Your task to perform on an android device: check the backup settings in the google photos Image 0: 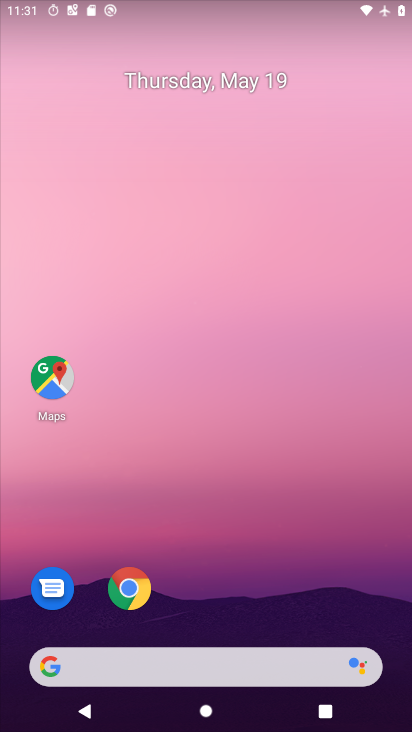
Step 0: press home button
Your task to perform on an android device: check the backup settings in the google photos Image 1: 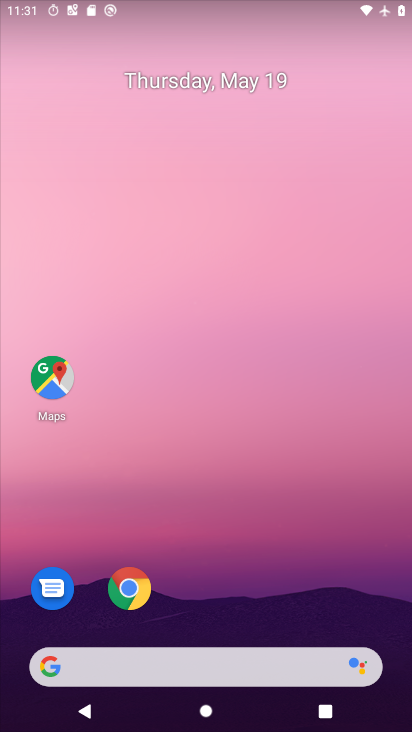
Step 1: drag from (160, 659) to (300, 177)
Your task to perform on an android device: check the backup settings in the google photos Image 2: 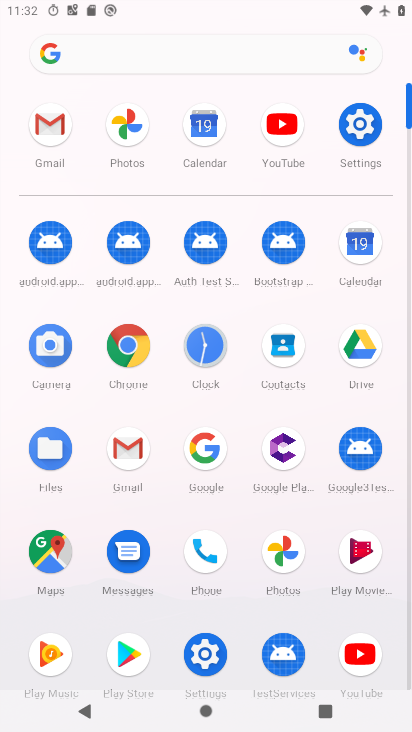
Step 2: click (283, 556)
Your task to perform on an android device: check the backup settings in the google photos Image 3: 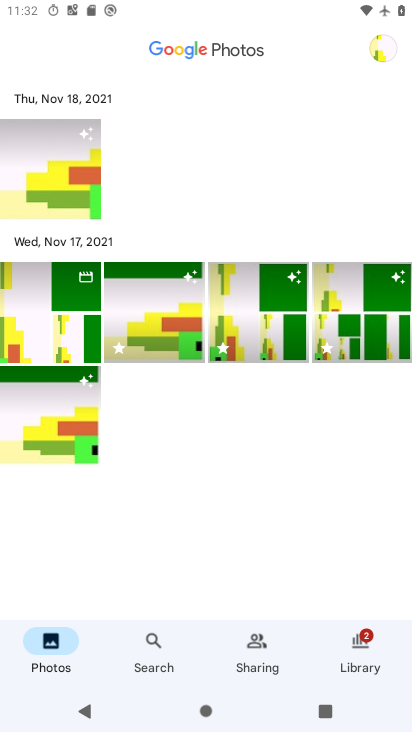
Step 3: click (377, 56)
Your task to perform on an android device: check the backup settings in the google photos Image 4: 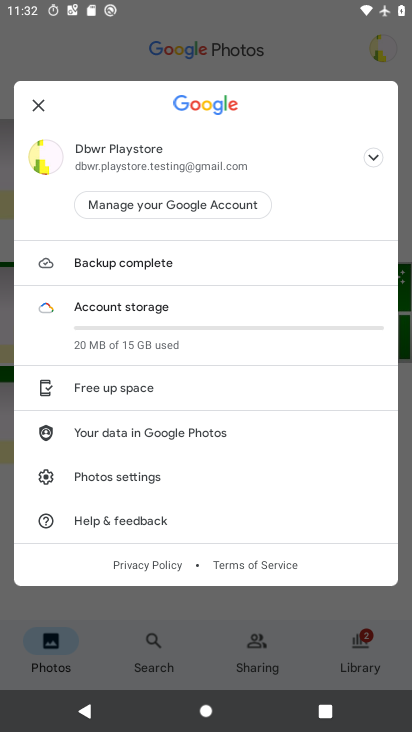
Step 4: click (121, 476)
Your task to perform on an android device: check the backup settings in the google photos Image 5: 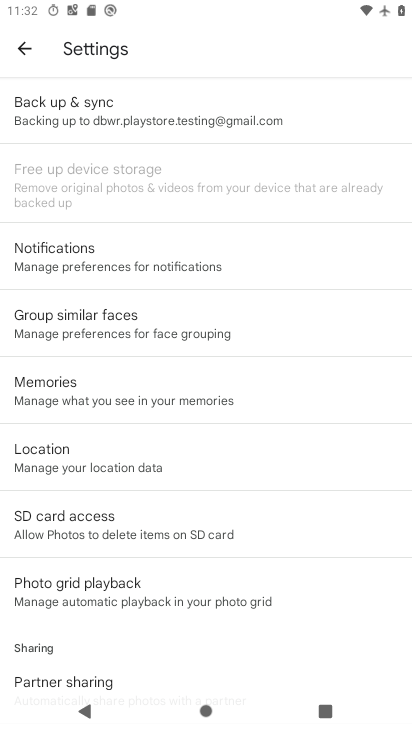
Step 5: click (215, 120)
Your task to perform on an android device: check the backup settings in the google photos Image 6: 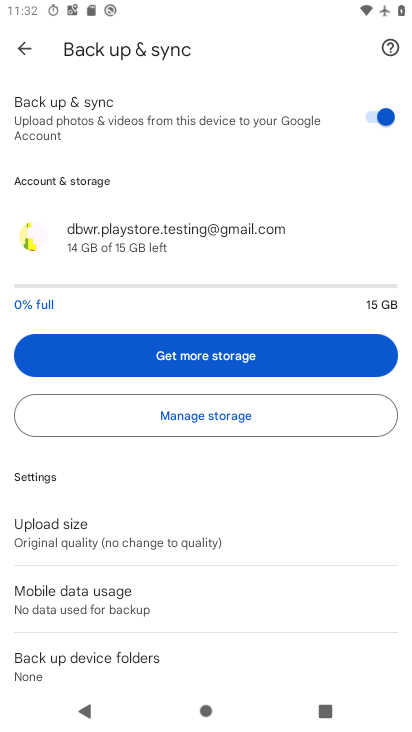
Step 6: task complete